Your task to perform on an android device: delete browsing data in the chrome app Image 0: 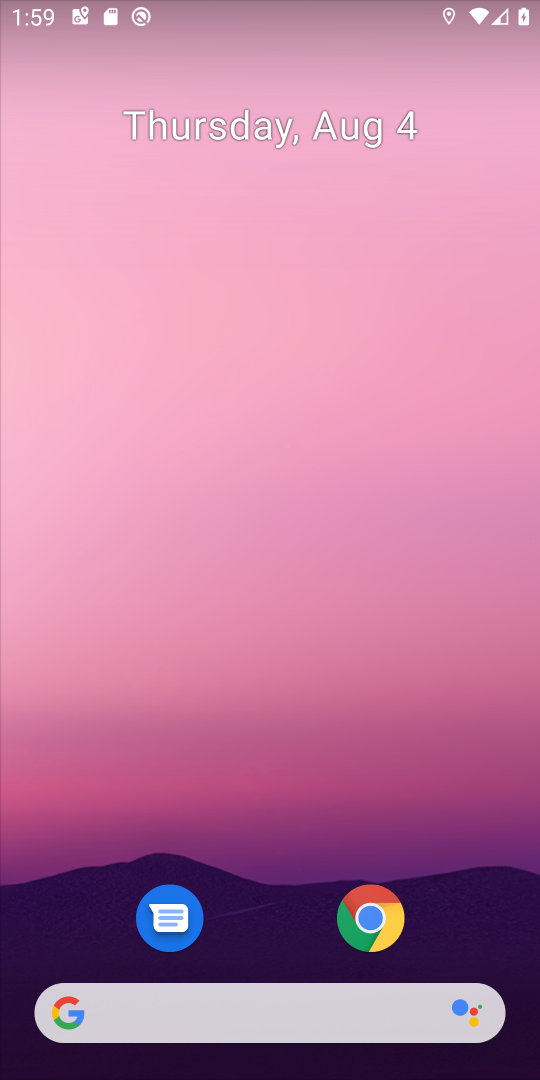
Step 0: click (363, 929)
Your task to perform on an android device: delete browsing data in the chrome app Image 1: 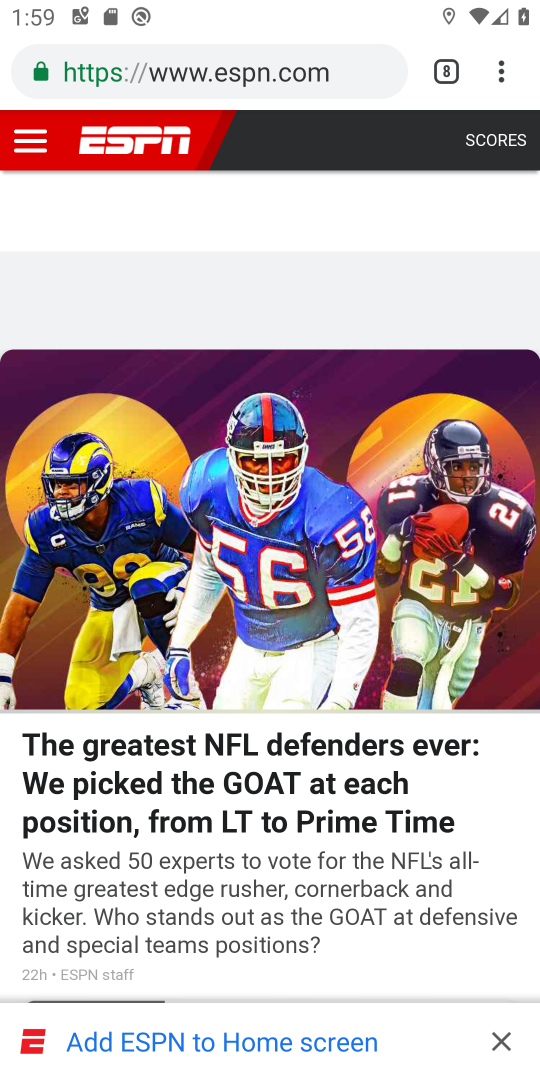
Step 1: click (512, 74)
Your task to perform on an android device: delete browsing data in the chrome app Image 2: 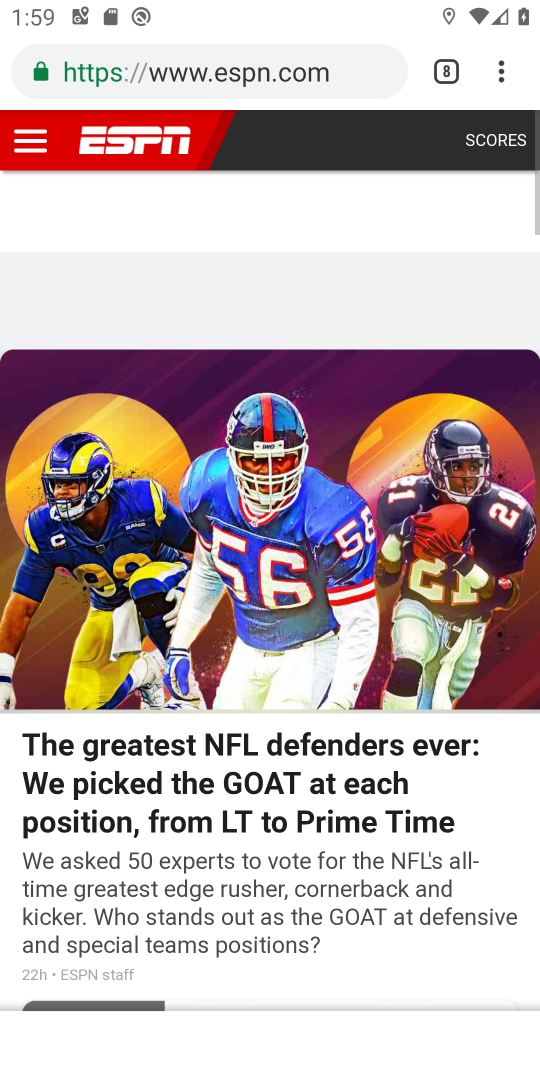
Step 2: drag from (501, 61) to (276, 389)
Your task to perform on an android device: delete browsing data in the chrome app Image 3: 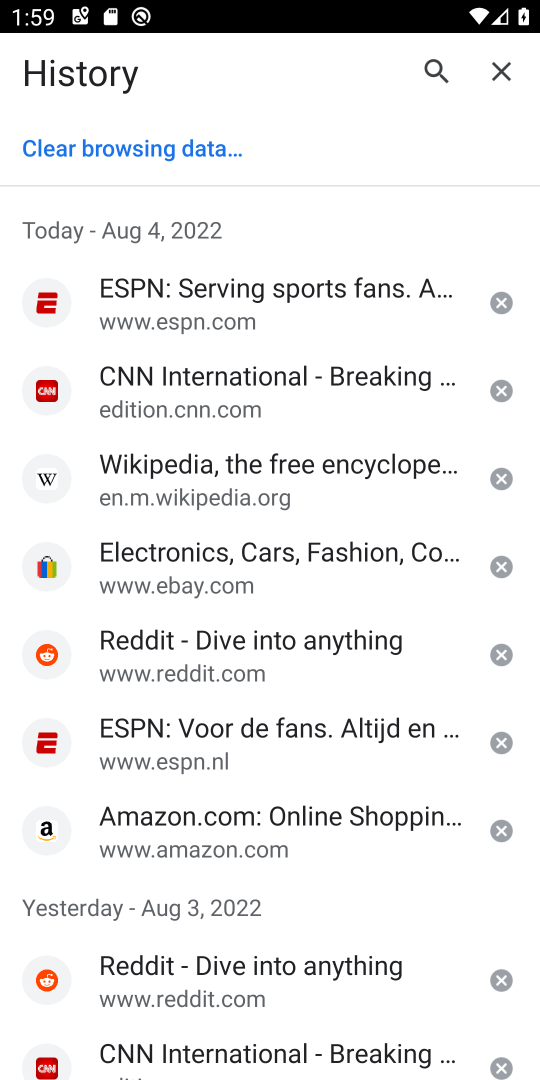
Step 3: click (148, 158)
Your task to perform on an android device: delete browsing data in the chrome app Image 4: 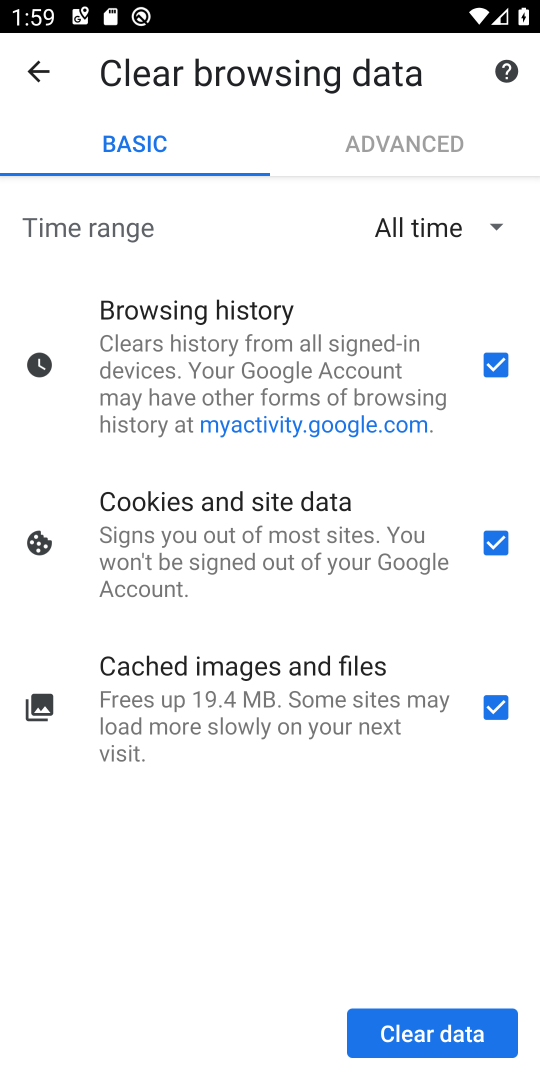
Step 4: click (420, 1021)
Your task to perform on an android device: delete browsing data in the chrome app Image 5: 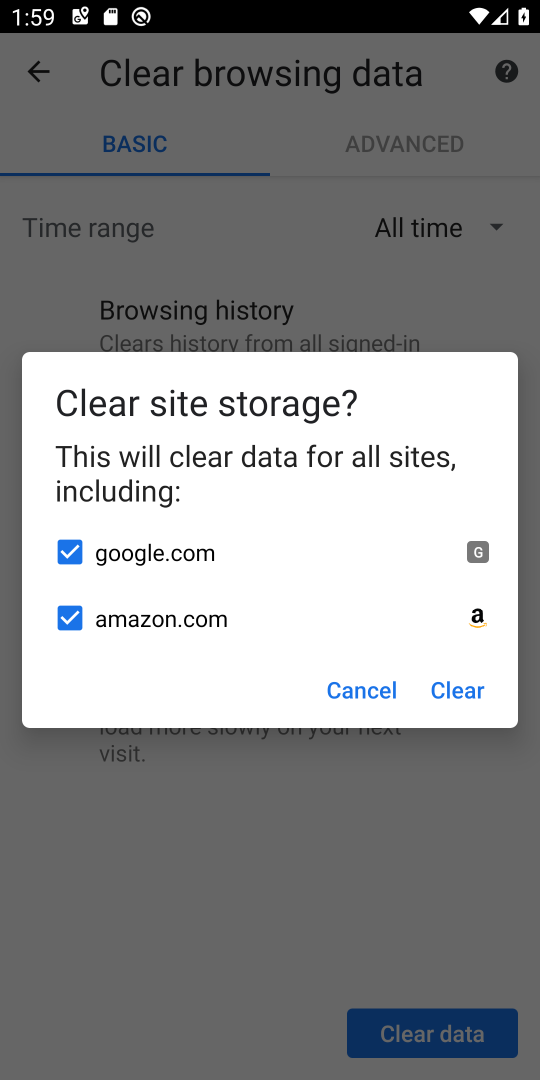
Step 5: click (447, 670)
Your task to perform on an android device: delete browsing data in the chrome app Image 6: 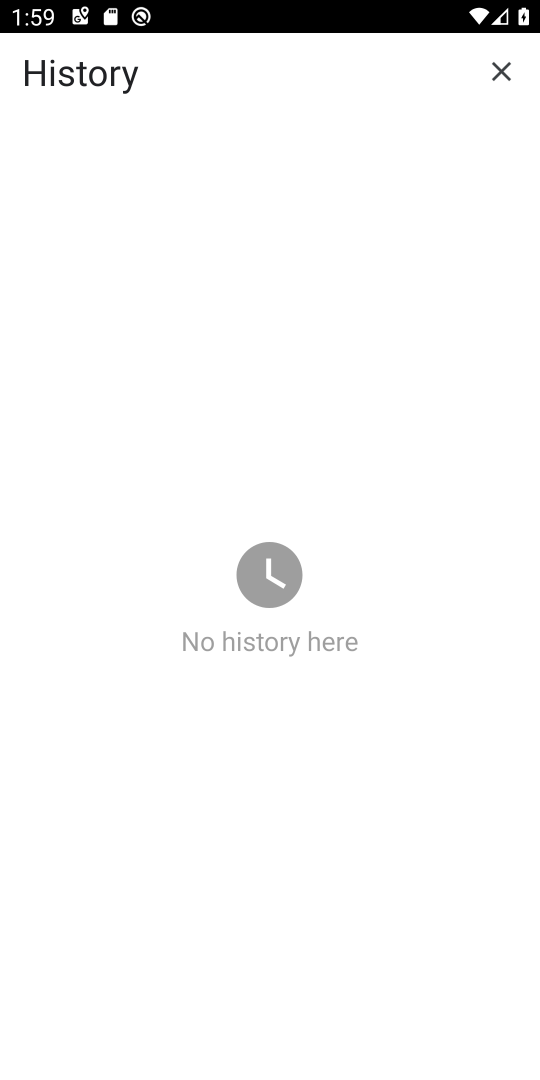
Step 6: task complete